Your task to perform on an android device: change text size in settings app Image 0: 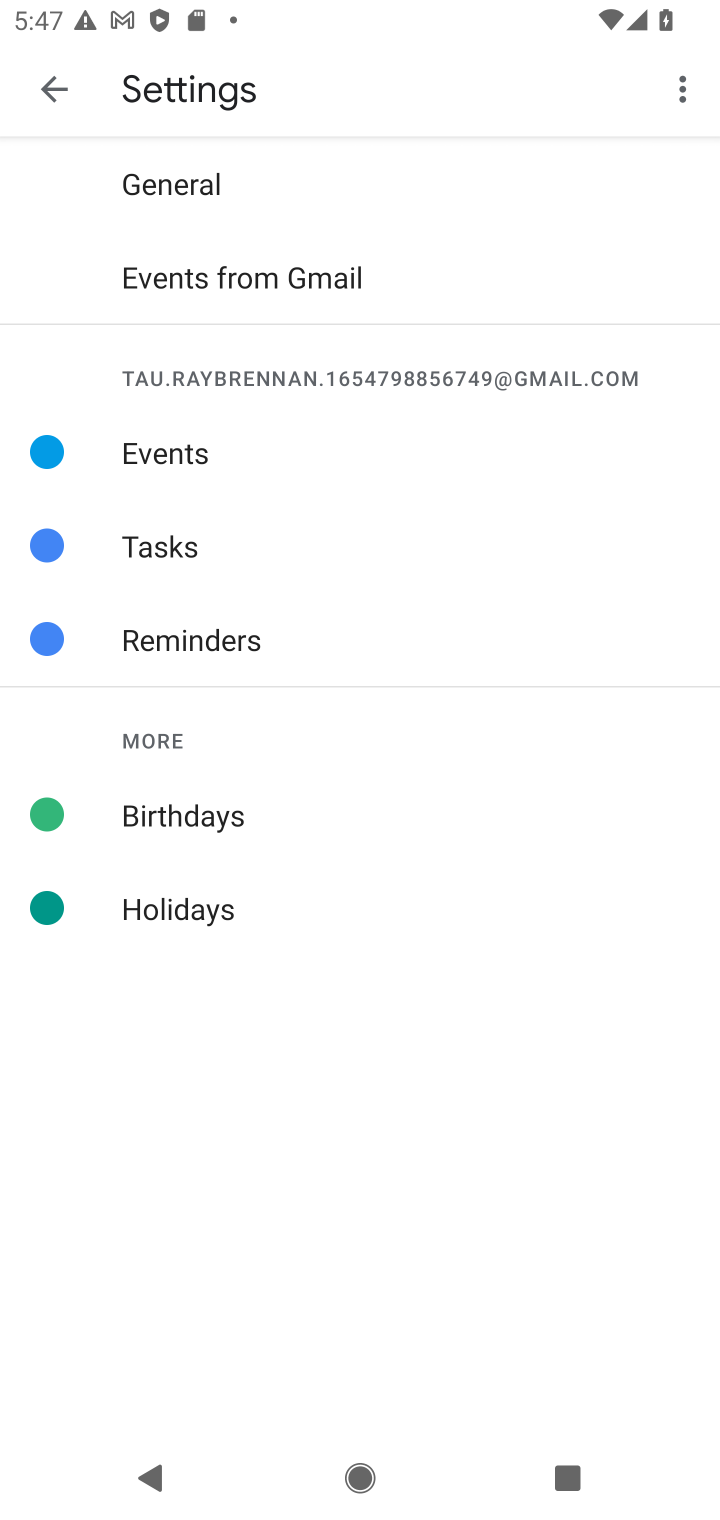
Step 0: press home button
Your task to perform on an android device: change text size in settings app Image 1: 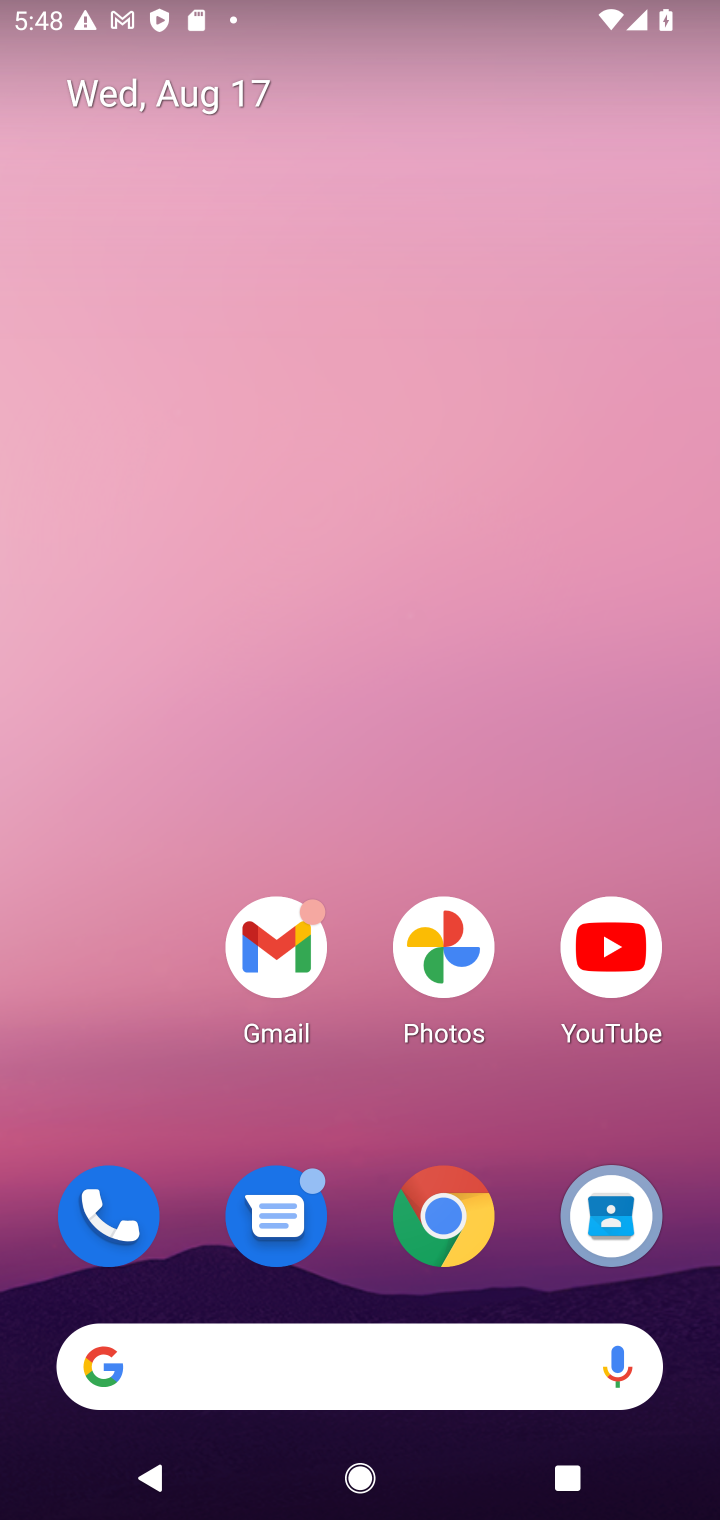
Step 1: drag from (569, 1010) to (565, 67)
Your task to perform on an android device: change text size in settings app Image 2: 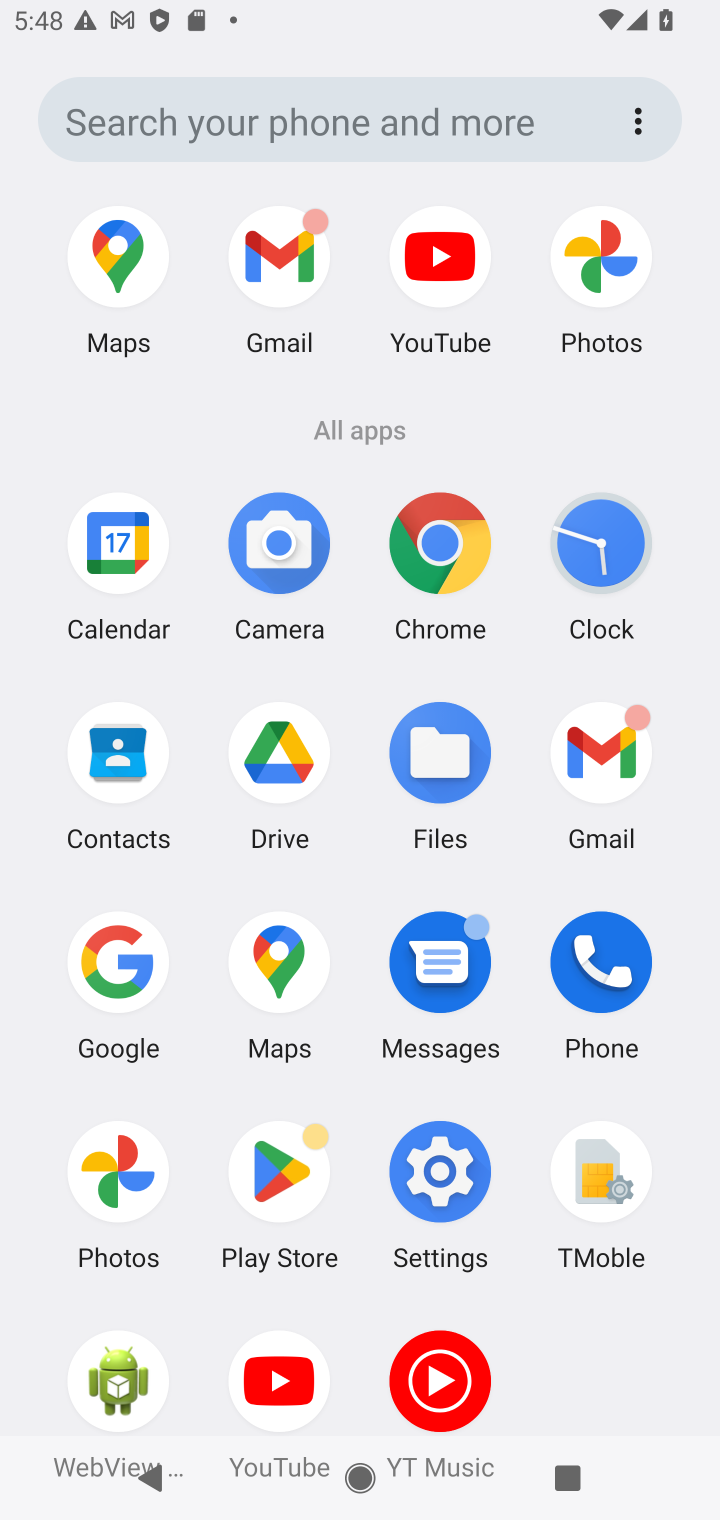
Step 2: drag from (526, 1132) to (493, 166)
Your task to perform on an android device: change text size in settings app Image 3: 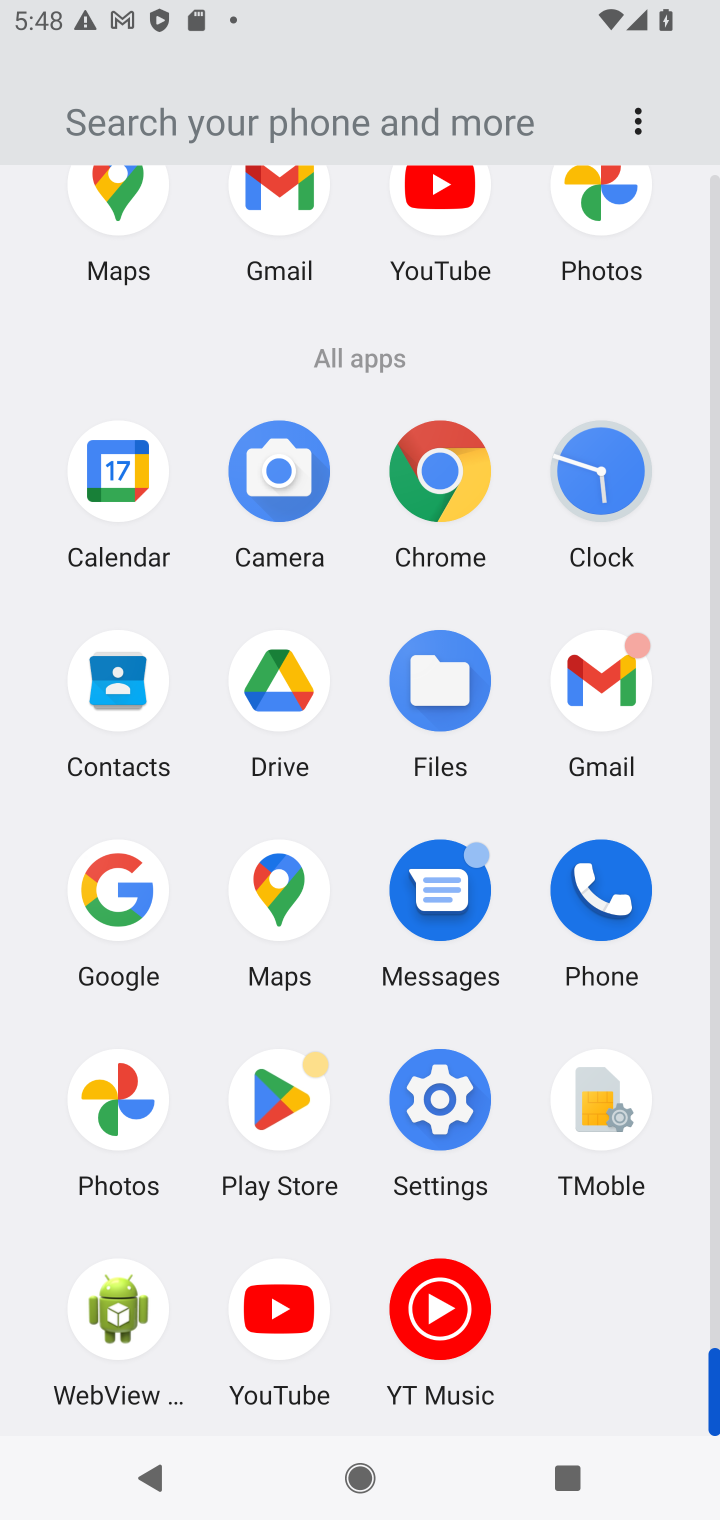
Step 3: click (471, 1096)
Your task to perform on an android device: change text size in settings app Image 4: 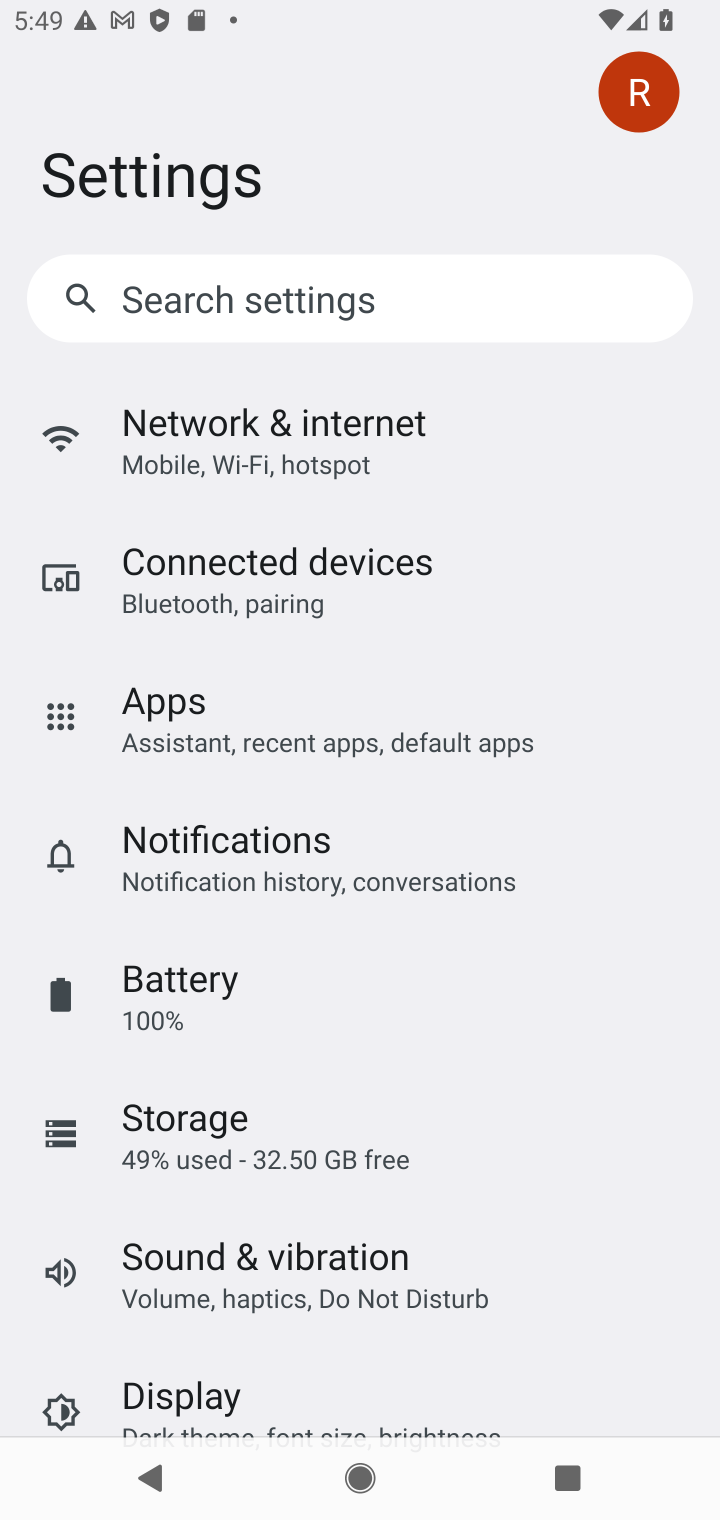
Step 4: drag from (477, 1258) to (360, 384)
Your task to perform on an android device: change text size in settings app Image 5: 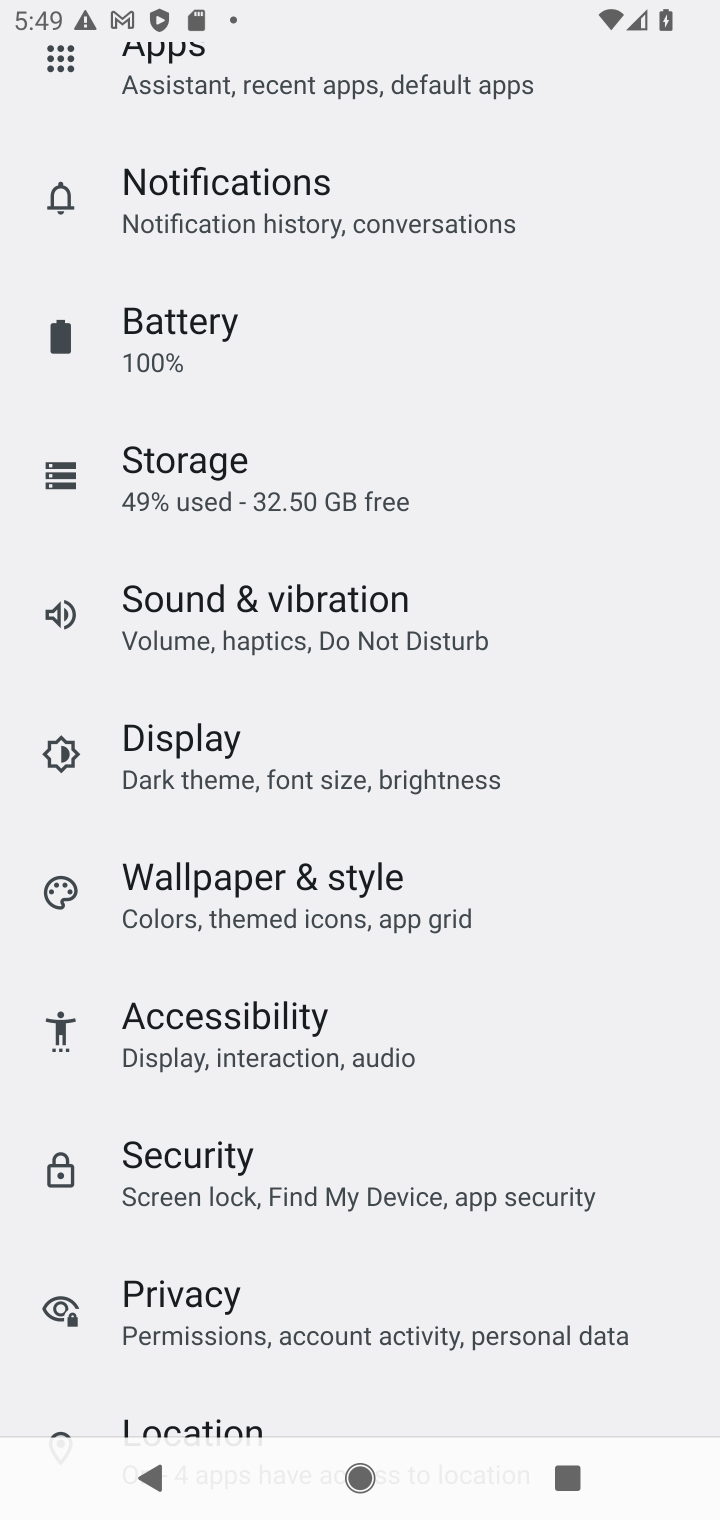
Step 5: drag from (298, 1241) to (254, 282)
Your task to perform on an android device: change text size in settings app Image 6: 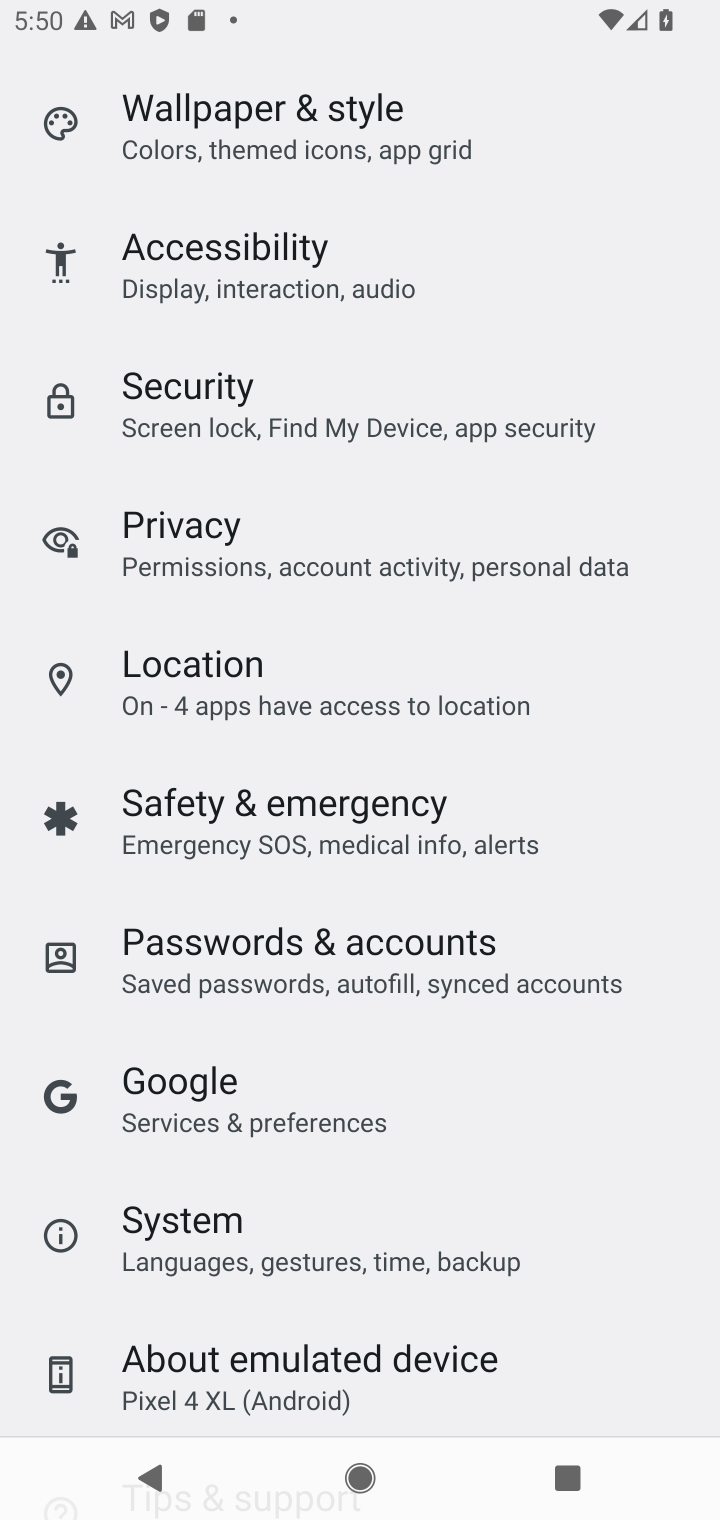
Step 6: drag from (388, 1275) to (388, 271)
Your task to perform on an android device: change text size in settings app Image 7: 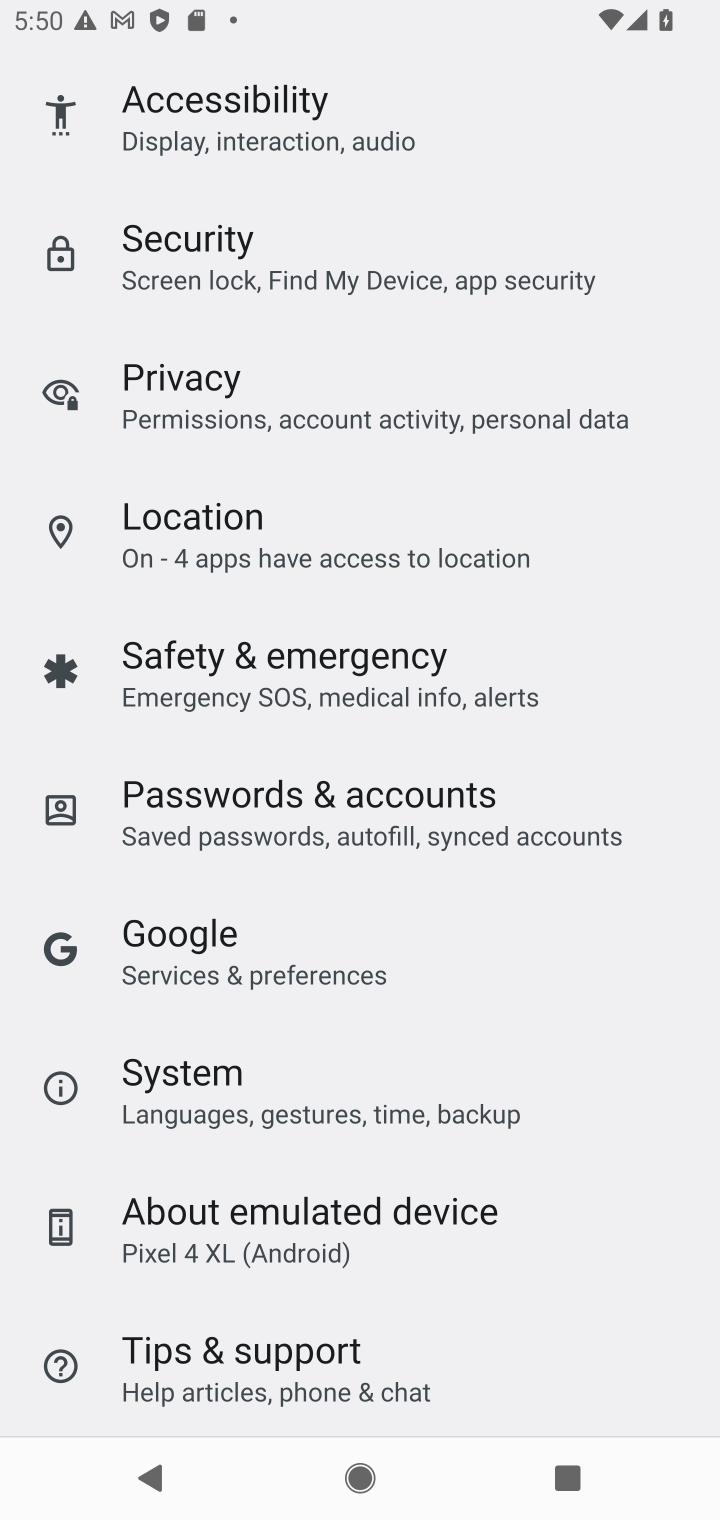
Step 7: drag from (285, 334) to (284, 1453)
Your task to perform on an android device: change text size in settings app Image 8: 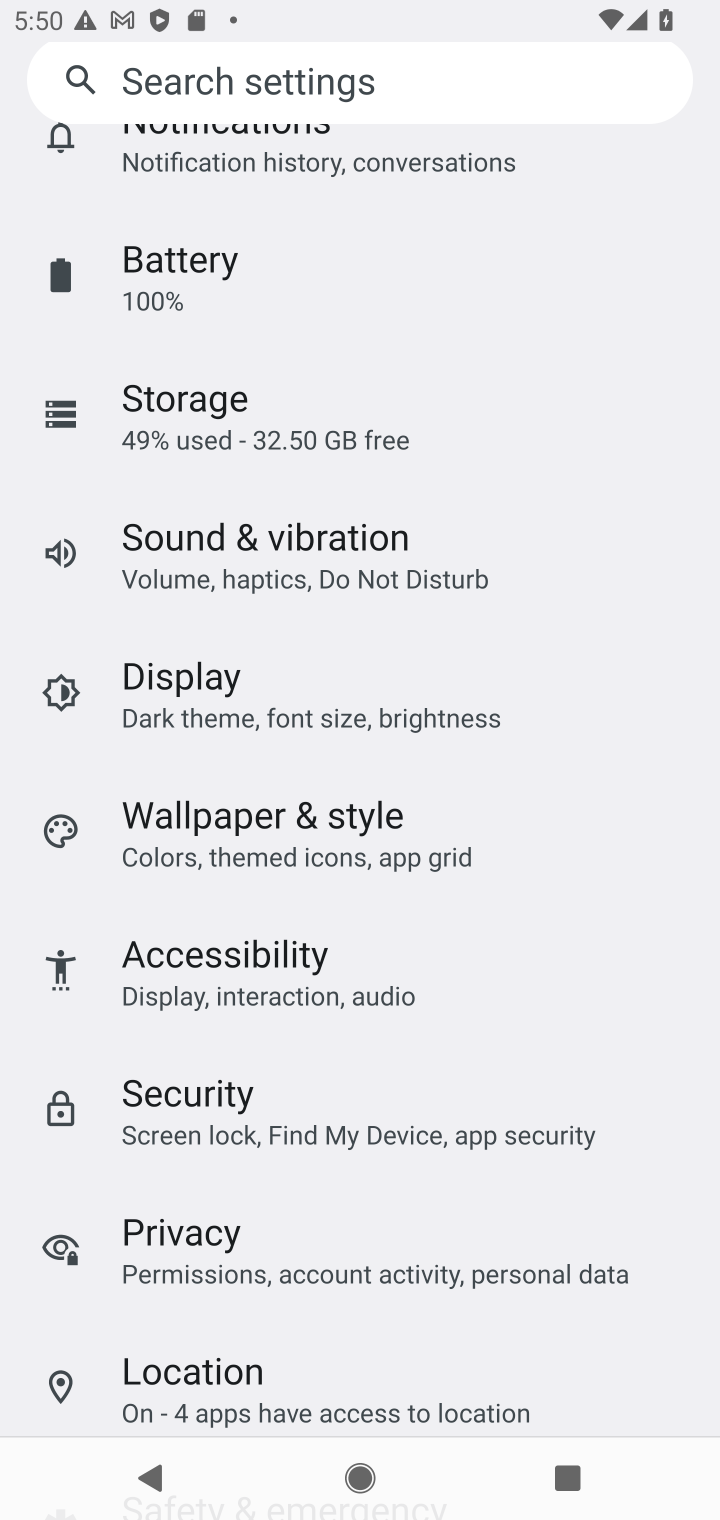
Step 8: click (245, 704)
Your task to perform on an android device: change text size in settings app Image 9: 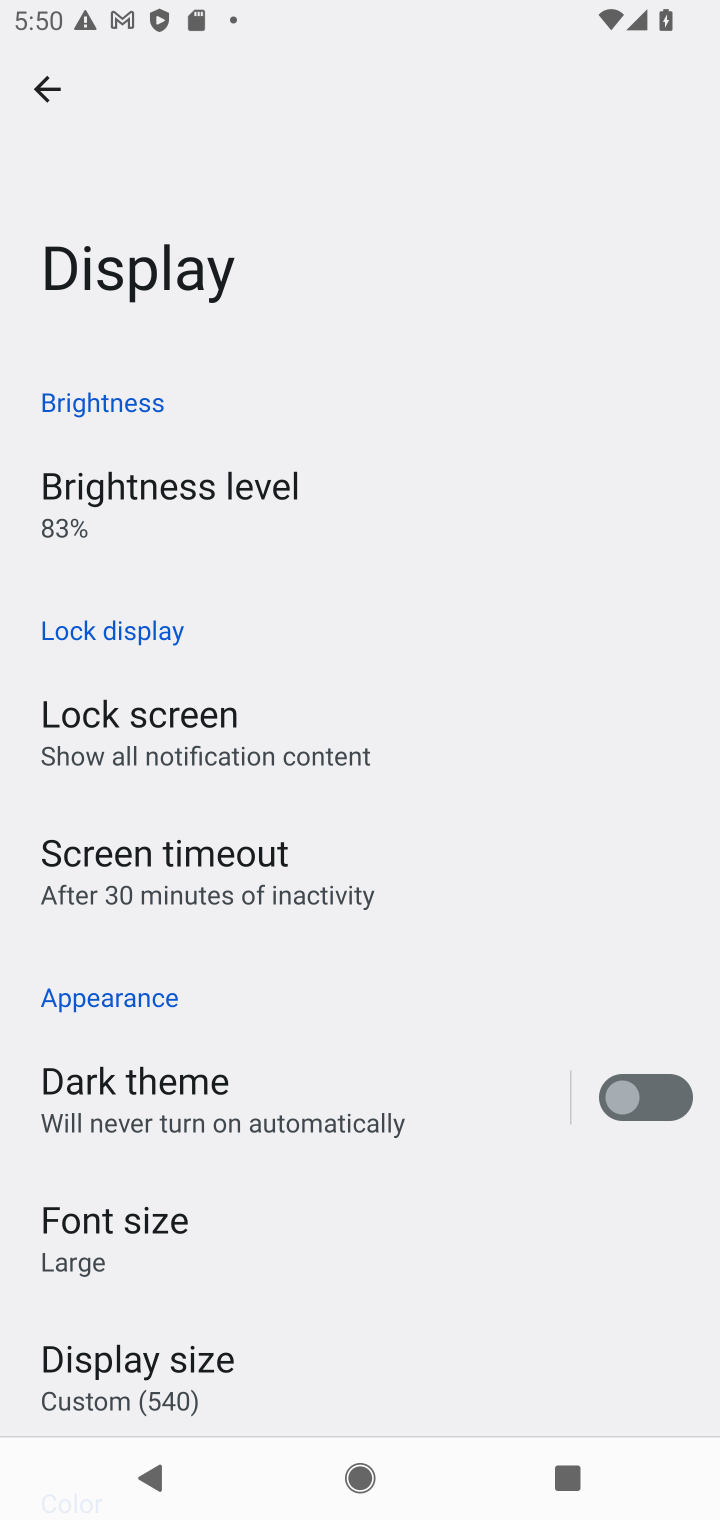
Step 9: click (153, 1230)
Your task to perform on an android device: change text size in settings app Image 10: 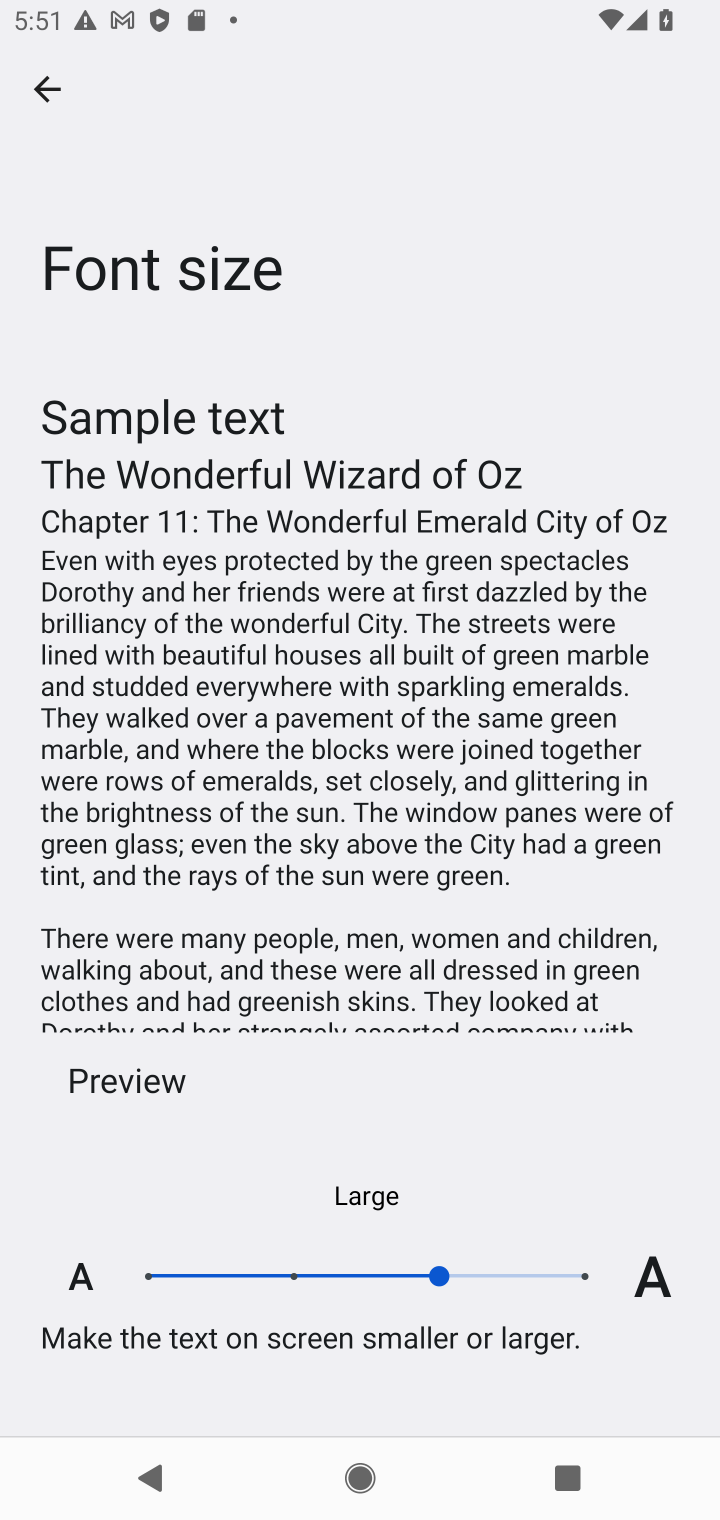
Step 10: click (286, 1268)
Your task to perform on an android device: change text size in settings app Image 11: 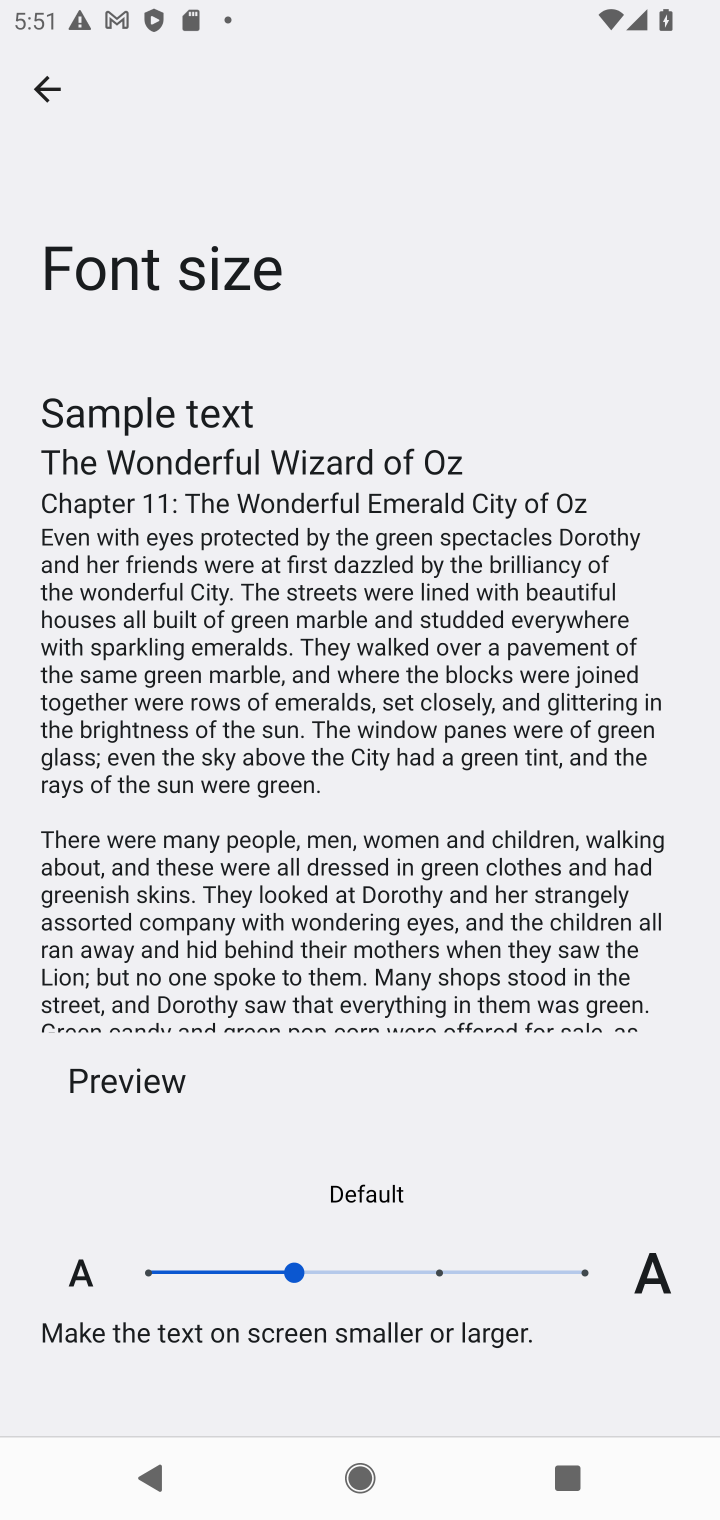
Step 11: task complete